Your task to perform on an android device: Open Youtube and go to the subscriptions tab Image 0: 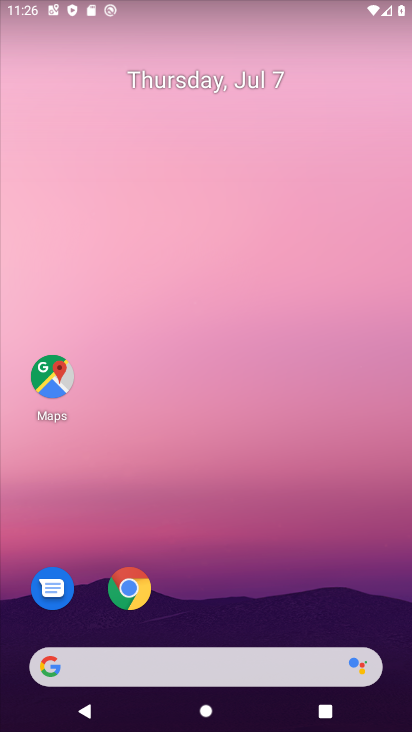
Step 0: drag from (201, 615) to (206, 67)
Your task to perform on an android device: Open Youtube and go to the subscriptions tab Image 1: 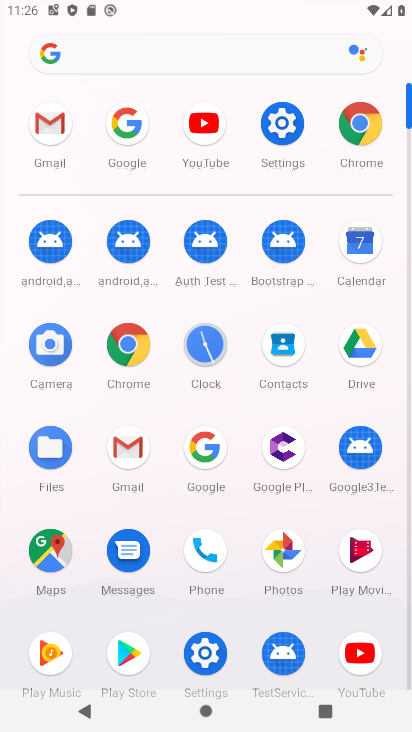
Step 1: click (203, 123)
Your task to perform on an android device: Open Youtube and go to the subscriptions tab Image 2: 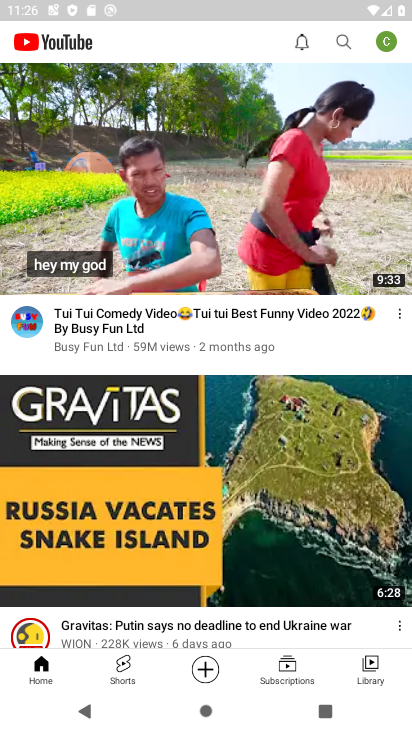
Step 2: click (280, 674)
Your task to perform on an android device: Open Youtube and go to the subscriptions tab Image 3: 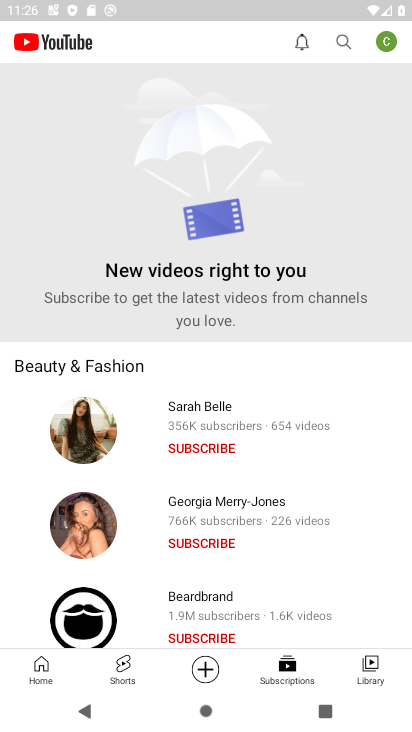
Step 3: task complete